Your task to perform on an android device: Go to Android settings Image 0: 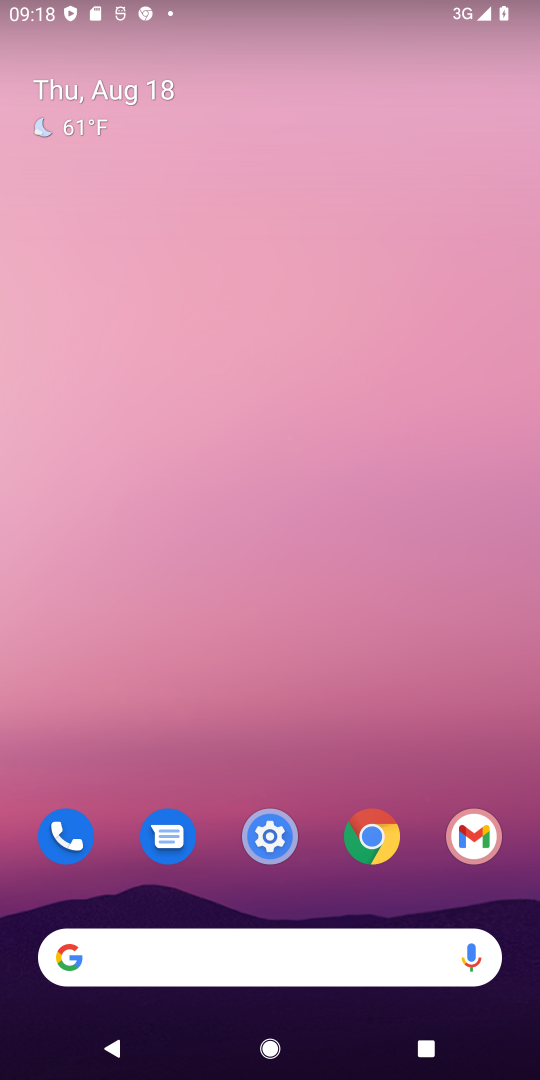
Step 0: drag from (264, 627) to (403, 52)
Your task to perform on an android device: Go to Android settings Image 1: 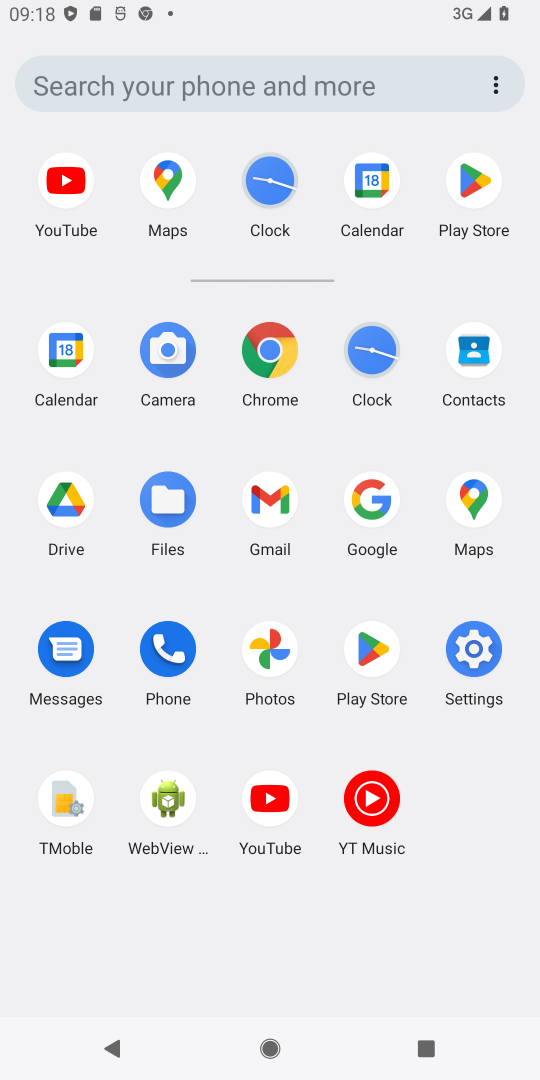
Step 1: click (477, 643)
Your task to perform on an android device: Go to Android settings Image 2: 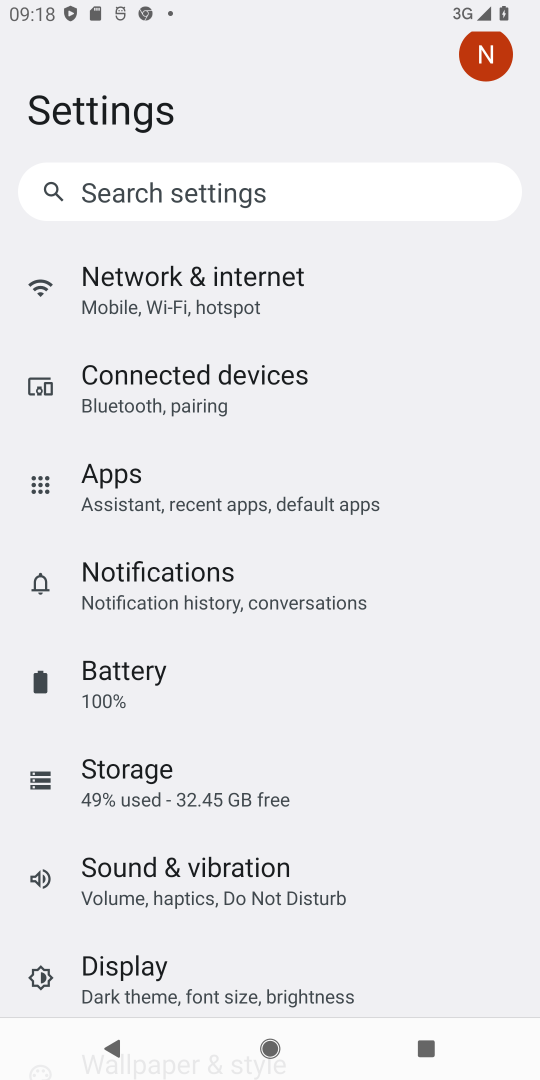
Step 2: task complete